Your task to perform on an android device: Search for seafood restaurants on Google Maps Image 0: 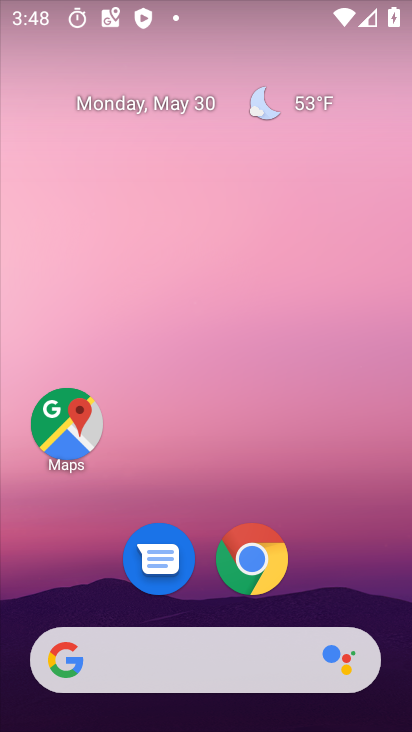
Step 0: drag from (239, 718) to (305, 18)
Your task to perform on an android device: Search for seafood restaurants on Google Maps Image 1: 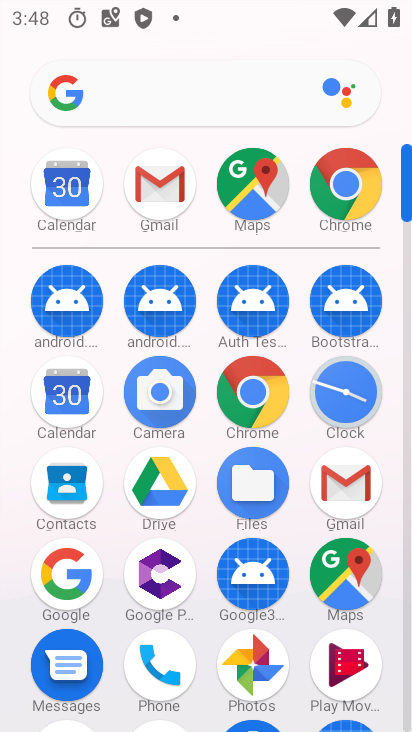
Step 1: click (344, 577)
Your task to perform on an android device: Search for seafood restaurants on Google Maps Image 2: 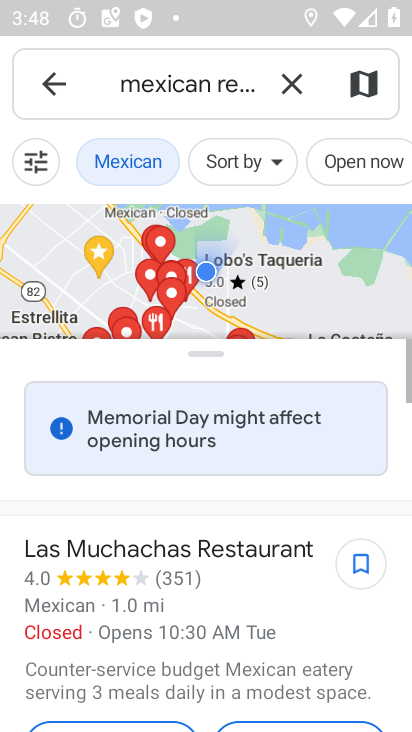
Step 2: click (286, 80)
Your task to perform on an android device: Search for seafood restaurants on Google Maps Image 3: 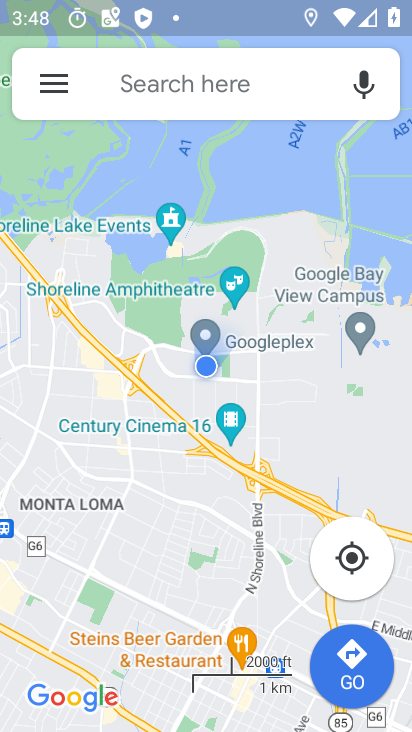
Step 3: click (192, 81)
Your task to perform on an android device: Search for seafood restaurants on Google Maps Image 4: 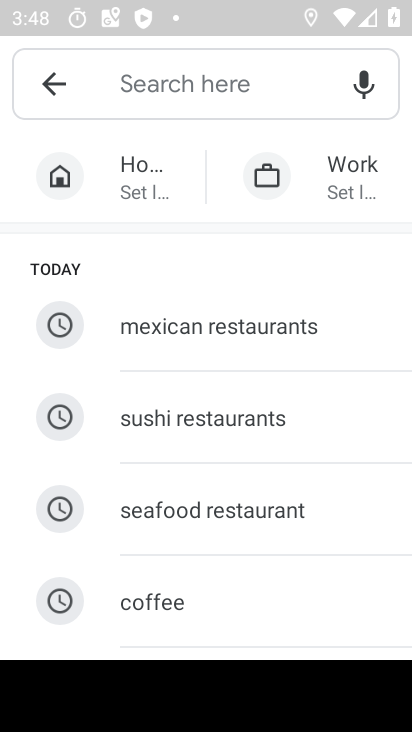
Step 4: type "seafood restaurants"
Your task to perform on an android device: Search for seafood restaurants on Google Maps Image 5: 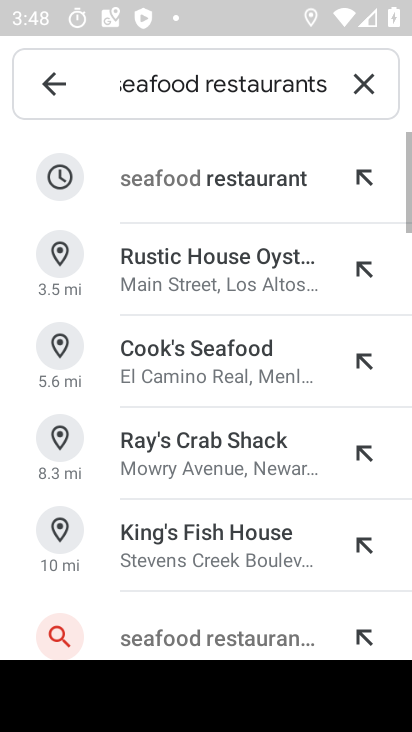
Step 5: click (193, 180)
Your task to perform on an android device: Search for seafood restaurants on Google Maps Image 6: 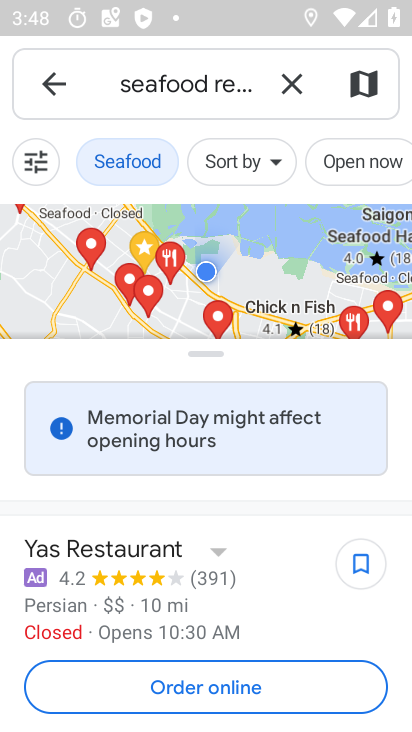
Step 6: task complete